Your task to perform on an android device: delete a single message in the gmail app Image 0: 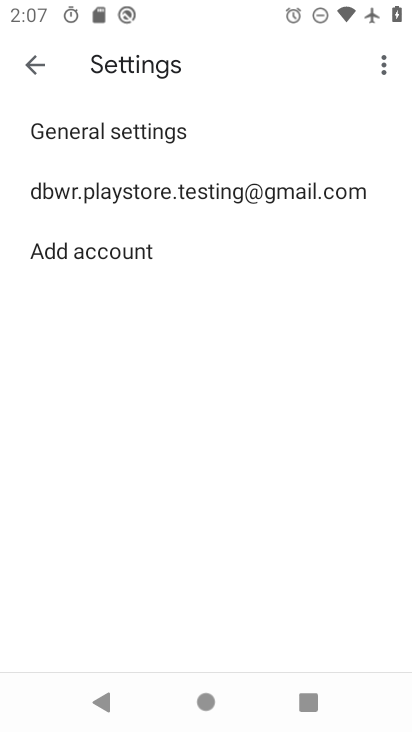
Step 0: press home button
Your task to perform on an android device: delete a single message in the gmail app Image 1: 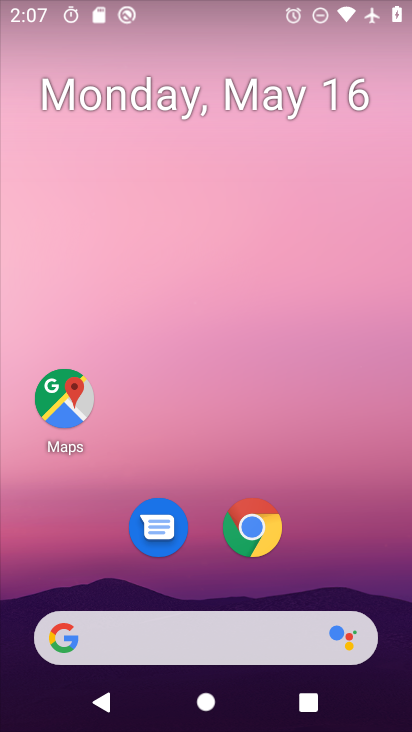
Step 1: drag from (132, 639) to (327, 134)
Your task to perform on an android device: delete a single message in the gmail app Image 2: 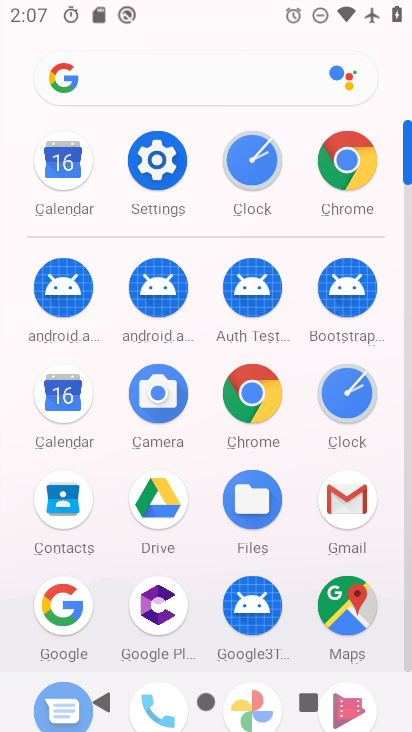
Step 2: click (340, 495)
Your task to perform on an android device: delete a single message in the gmail app Image 3: 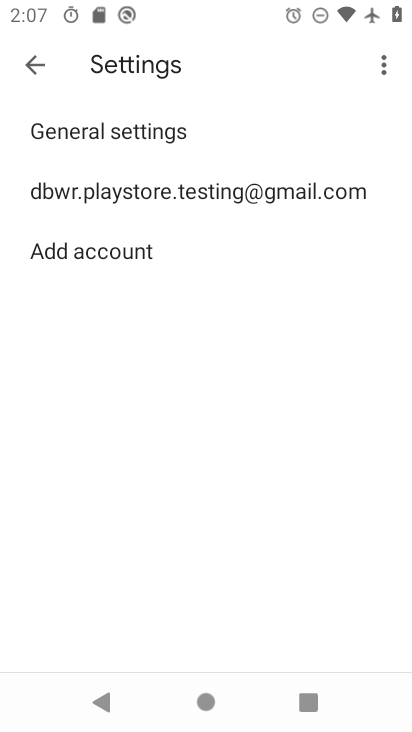
Step 3: click (27, 64)
Your task to perform on an android device: delete a single message in the gmail app Image 4: 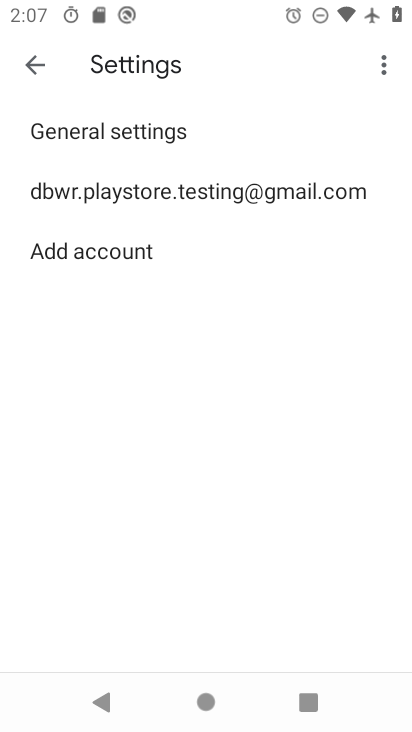
Step 4: click (45, 73)
Your task to perform on an android device: delete a single message in the gmail app Image 5: 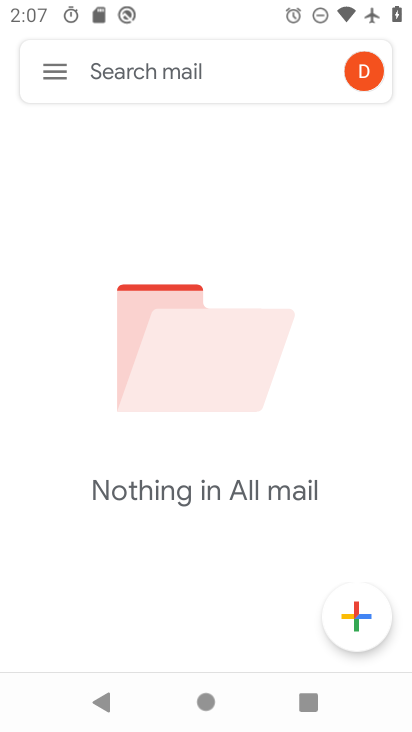
Step 5: task complete